Your task to perform on an android device: Open the calendar and show me this week's events Image 0: 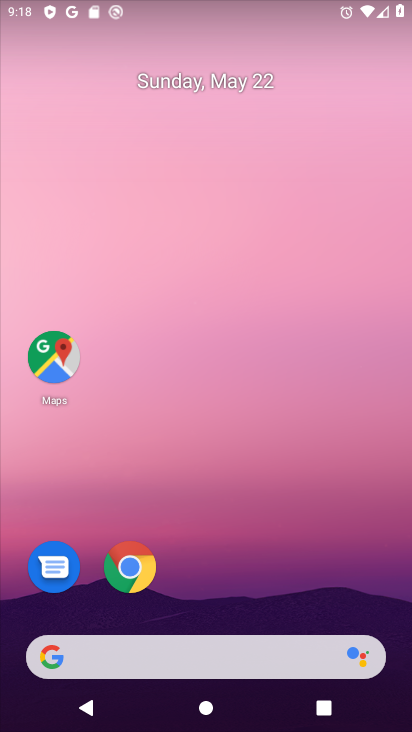
Step 0: drag from (210, 595) to (330, 10)
Your task to perform on an android device: Open the calendar and show me this week's events Image 1: 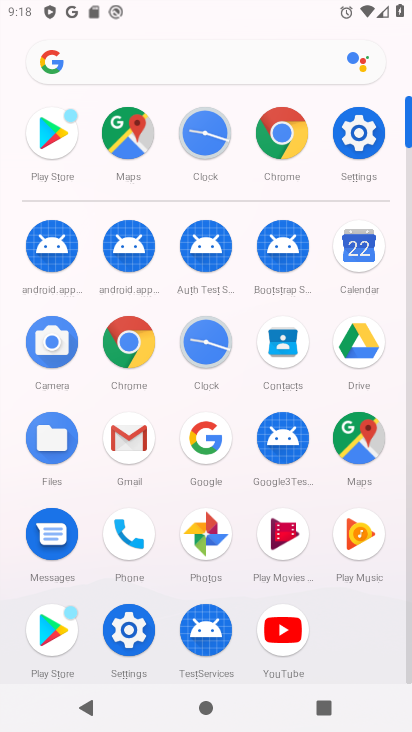
Step 1: click (355, 257)
Your task to perform on an android device: Open the calendar and show me this week's events Image 2: 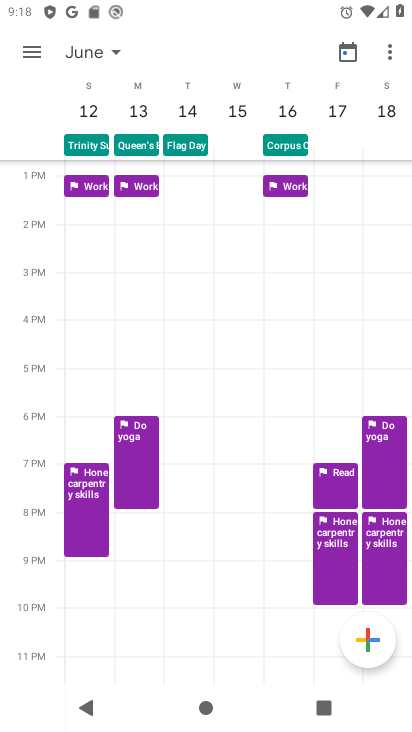
Step 2: drag from (107, 148) to (395, 204)
Your task to perform on an android device: Open the calendar and show me this week's events Image 3: 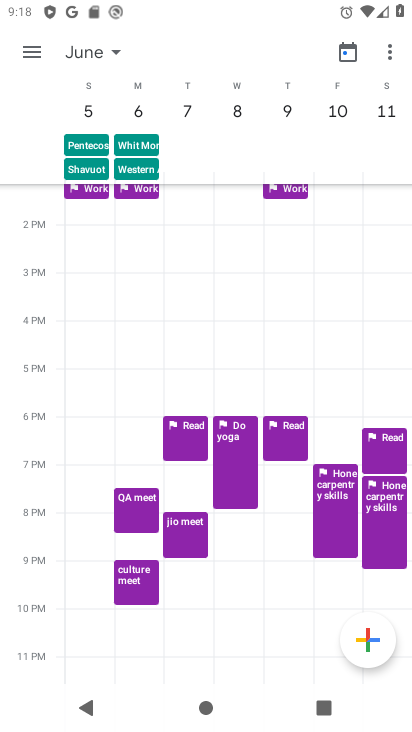
Step 3: drag from (110, 143) to (389, 174)
Your task to perform on an android device: Open the calendar and show me this week's events Image 4: 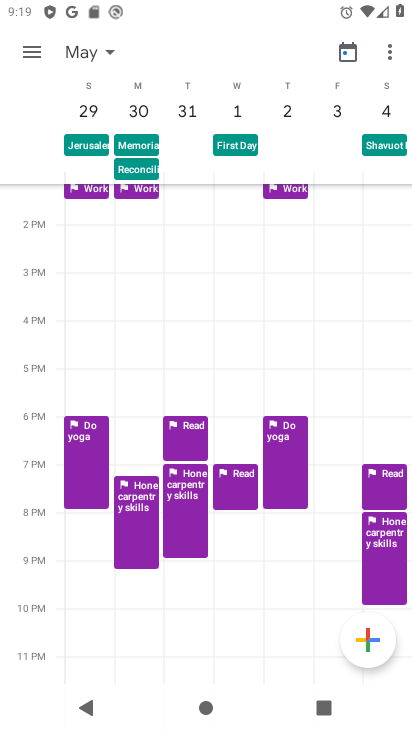
Step 4: drag from (111, 139) to (391, 151)
Your task to perform on an android device: Open the calendar and show me this week's events Image 5: 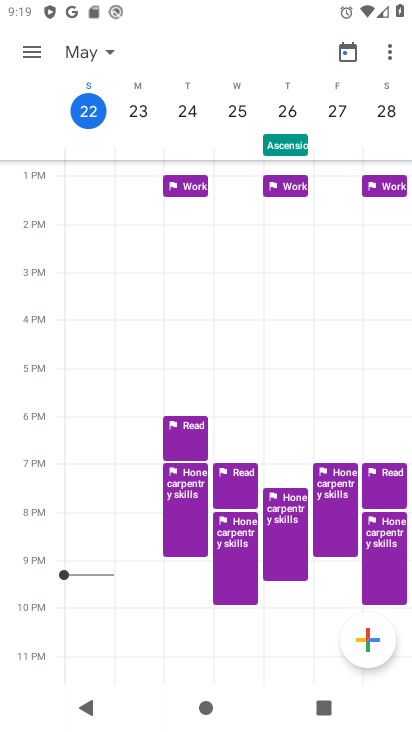
Step 5: click (27, 51)
Your task to perform on an android device: Open the calendar and show me this week's events Image 6: 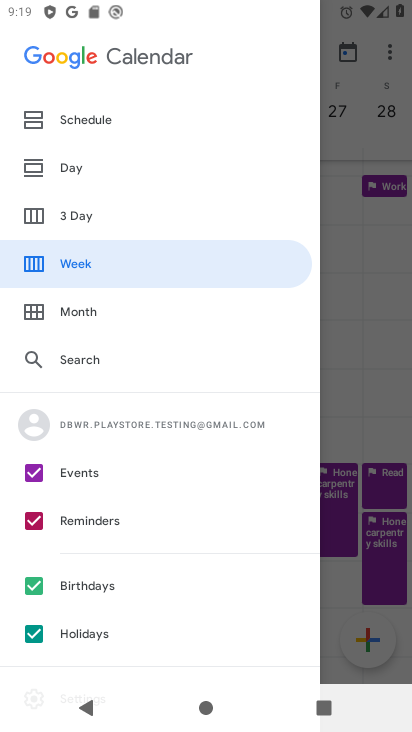
Step 6: click (68, 529)
Your task to perform on an android device: Open the calendar and show me this week's events Image 7: 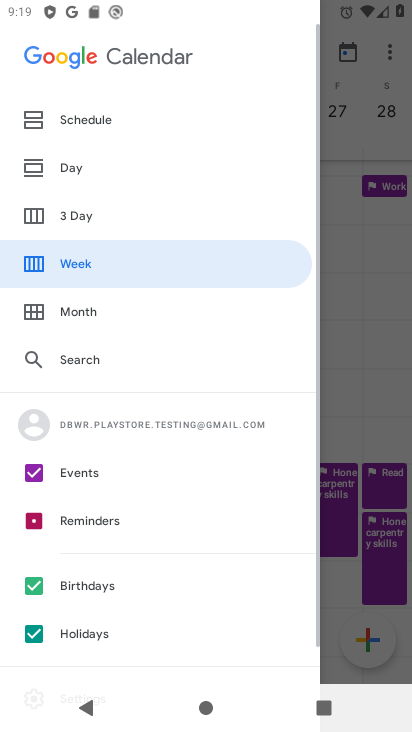
Step 7: click (78, 588)
Your task to perform on an android device: Open the calendar and show me this week's events Image 8: 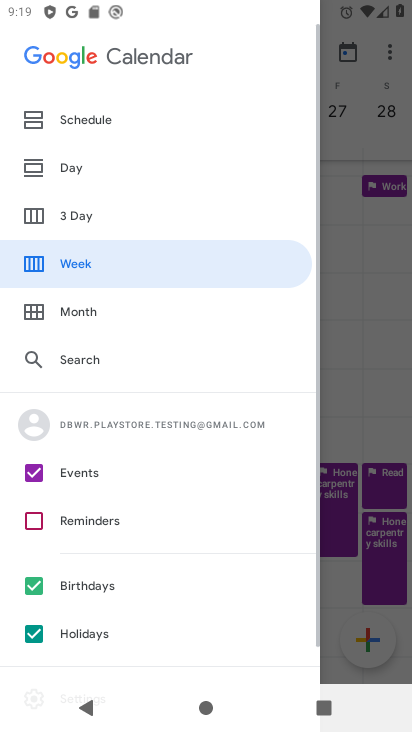
Step 8: click (73, 638)
Your task to perform on an android device: Open the calendar and show me this week's events Image 9: 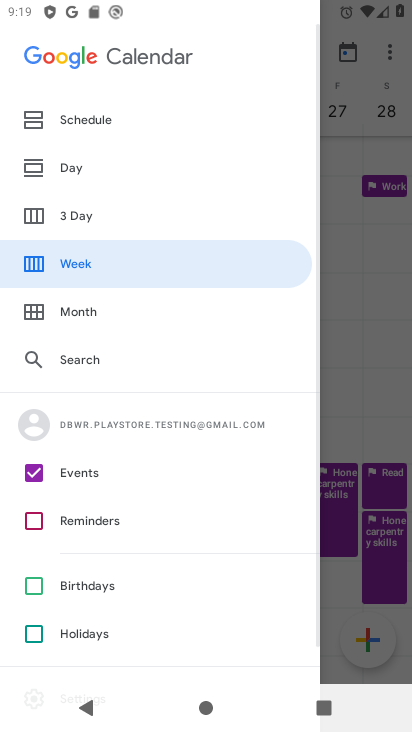
Step 9: click (87, 264)
Your task to perform on an android device: Open the calendar and show me this week's events Image 10: 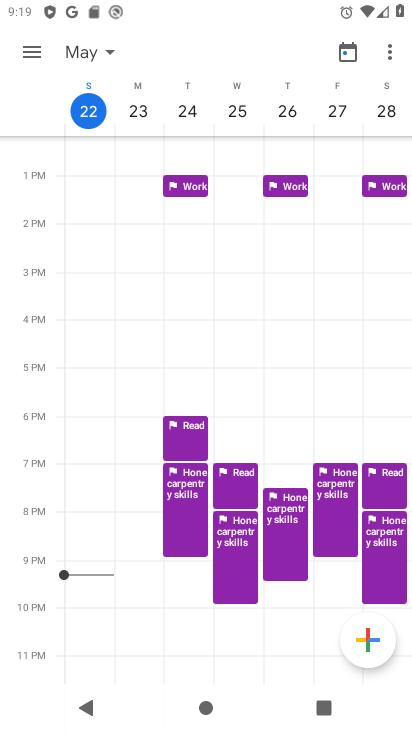
Step 10: task complete